Your task to perform on an android device: see sites visited before in the chrome app Image 0: 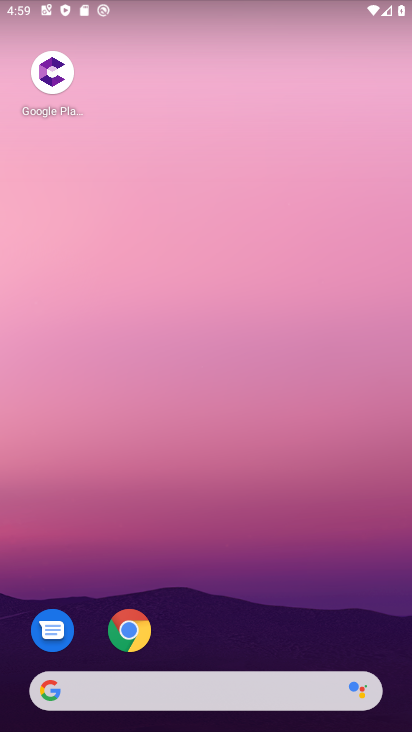
Step 0: drag from (268, 472) to (151, 59)
Your task to perform on an android device: see sites visited before in the chrome app Image 1: 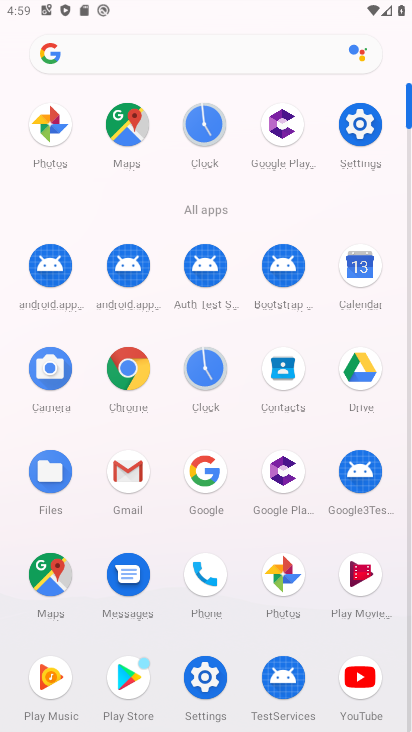
Step 1: click (128, 362)
Your task to perform on an android device: see sites visited before in the chrome app Image 2: 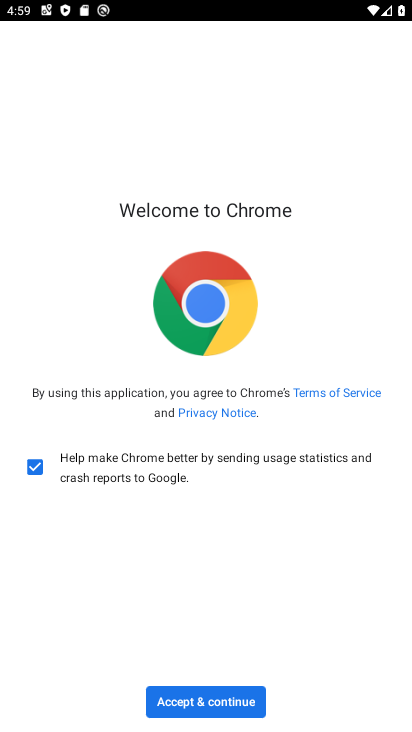
Step 2: click (196, 696)
Your task to perform on an android device: see sites visited before in the chrome app Image 3: 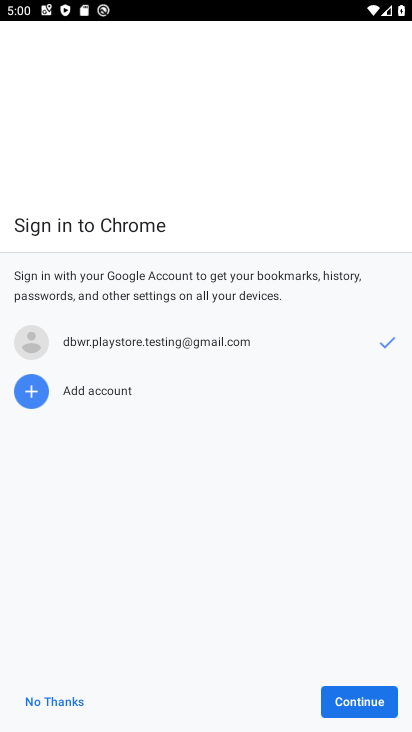
Step 3: click (334, 698)
Your task to perform on an android device: see sites visited before in the chrome app Image 4: 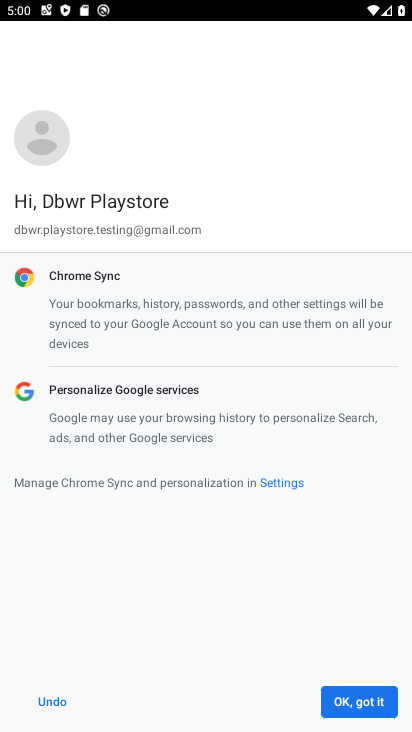
Step 4: click (341, 694)
Your task to perform on an android device: see sites visited before in the chrome app Image 5: 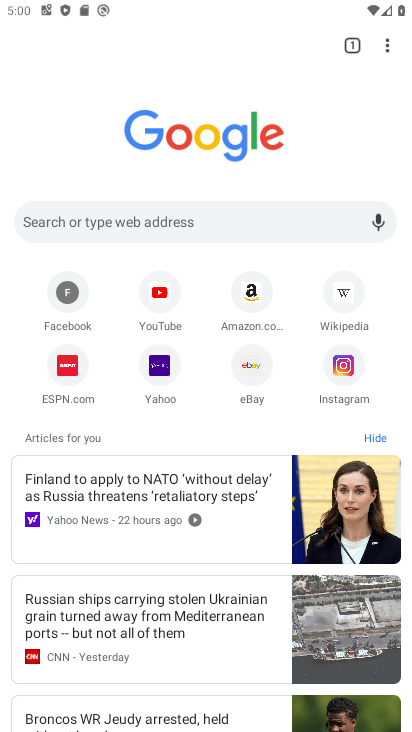
Step 5: task complete